Your task to perform on an android device: Go to calendar. Show me events next week Image 0: 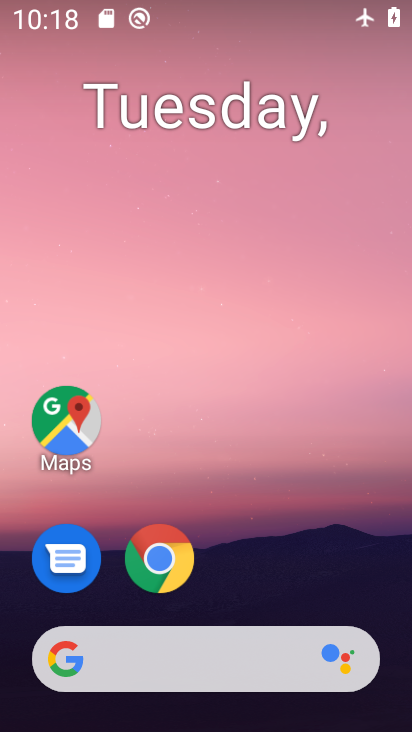
Step 0: press home button
Your task to perform on an android device: Go to calendar. Show me events next week Image 1: 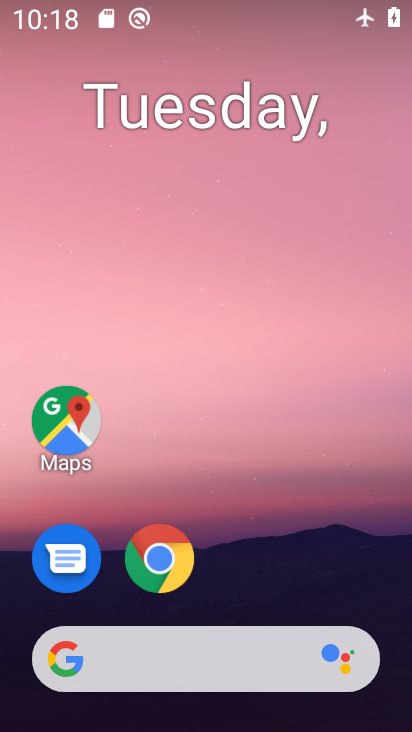
Step 1: drag from (350, 580) to (335, 82)
Your task to perform on an android device: Go to calendar. Show me events next week Image 2: 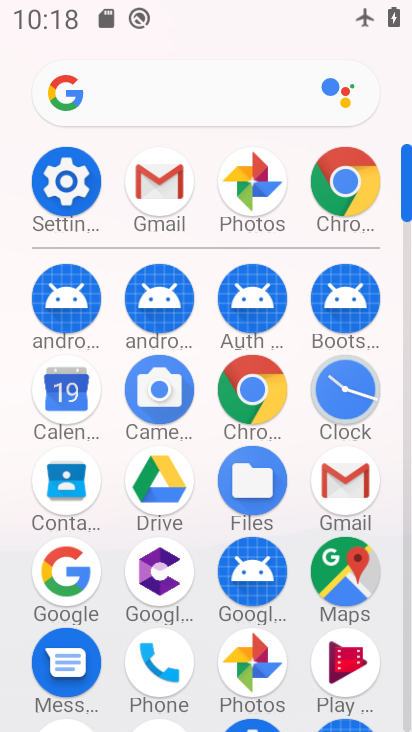
Step 2: click (72, 399)
Your task to perform on an android device: Go to calendar. Show me events next week Image 3: 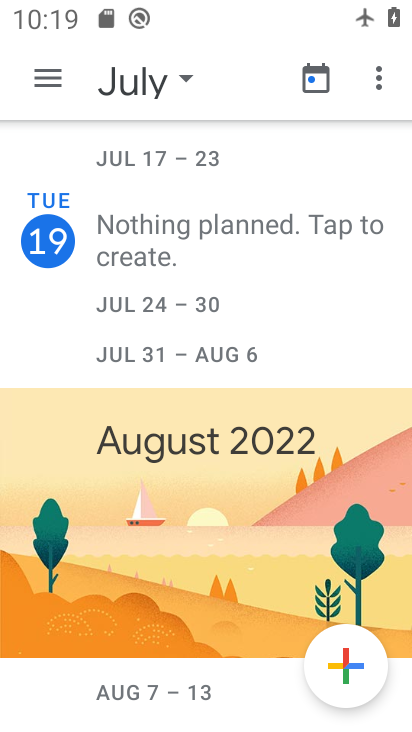
Step 3: click (184, 76)
Your task to perform on an android device: Go to calendar. Show me events next week Image 4: 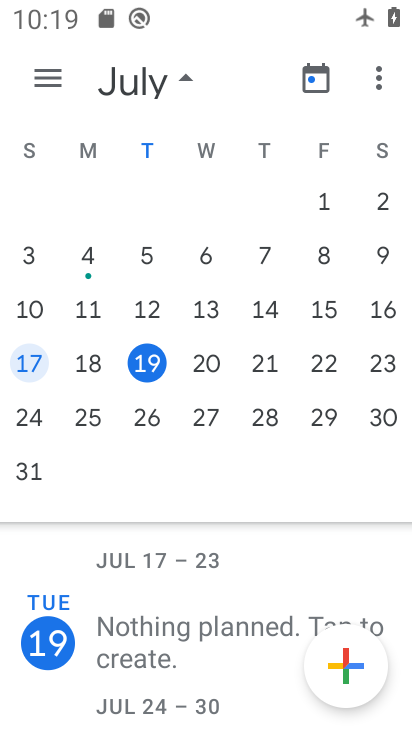
Step 4: click (99, 418)
Your task to perform on an android device: Go to calendar. Show me events next week Image 5: 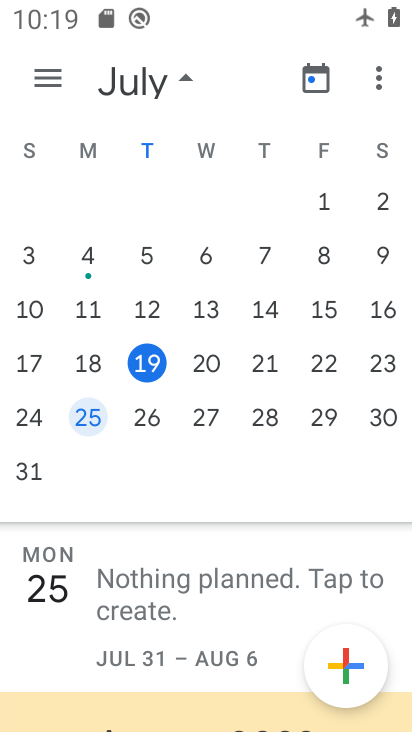
Step 5: task complete